Your task to perform on an android device: Go to wifi settings Image 0: 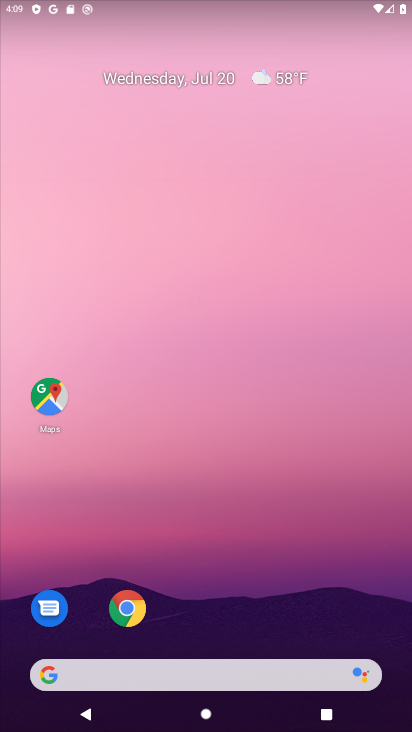
Step 0: drag from (240, 610) to (322, 2)
Your task to perform on an android device: Go to wifi settings Image 1: 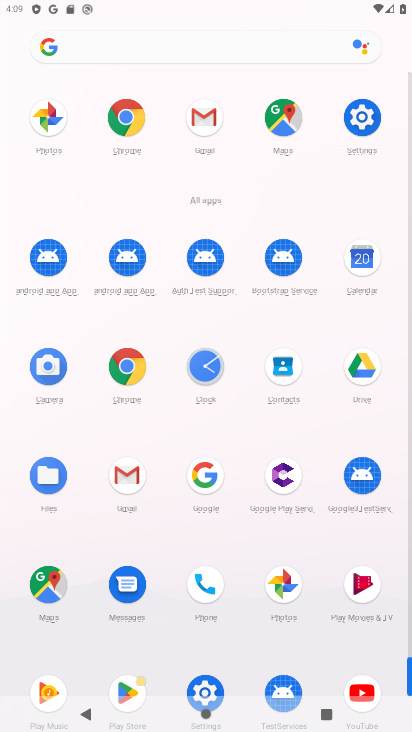
Step 1: click (379, 116)
Your task to perform on an android device: Go to wifi settings Image 2: 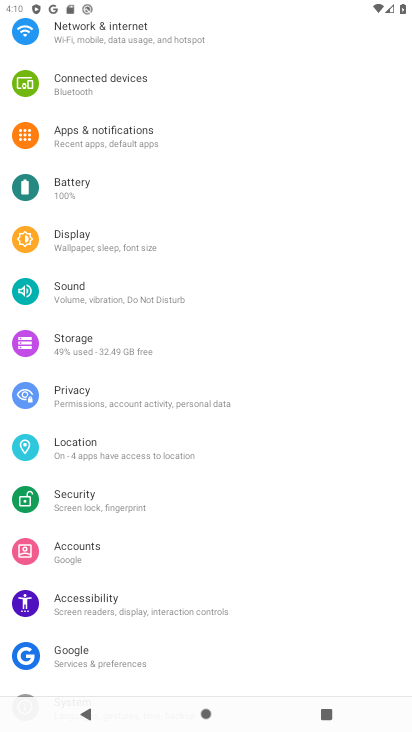
Step 2: drag from (141, 136) to (138, 328)
Your task to perform on an android device: Go to wifi settings Image 3: 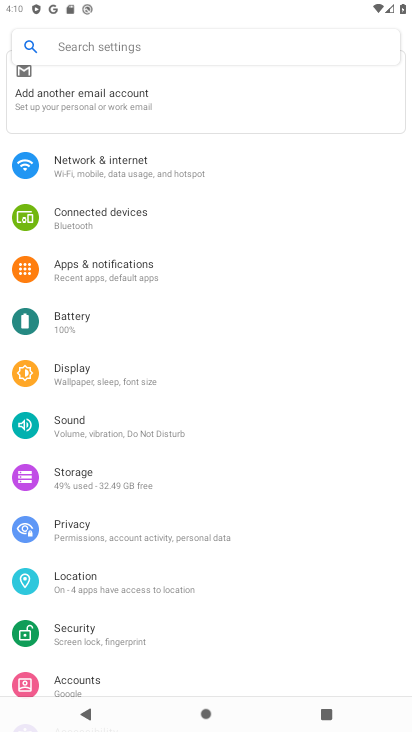
Step 3: click (105, 173)
Your task to perform on an android device: Go to wifi settings Image 4: 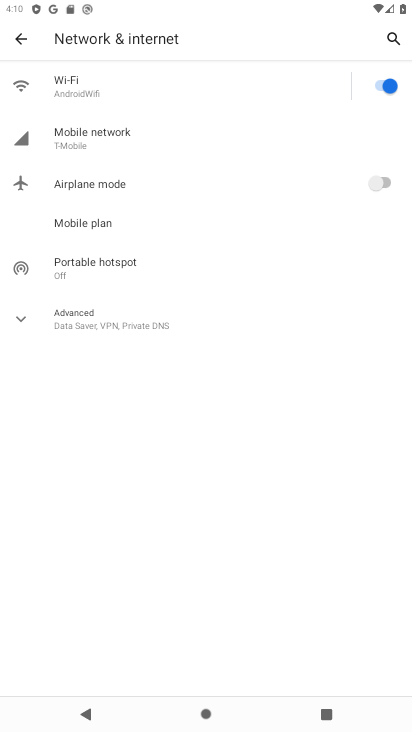
Step 4: click (86, 84)
Your task to perform on an android device: Go to wifi settings Image 5: 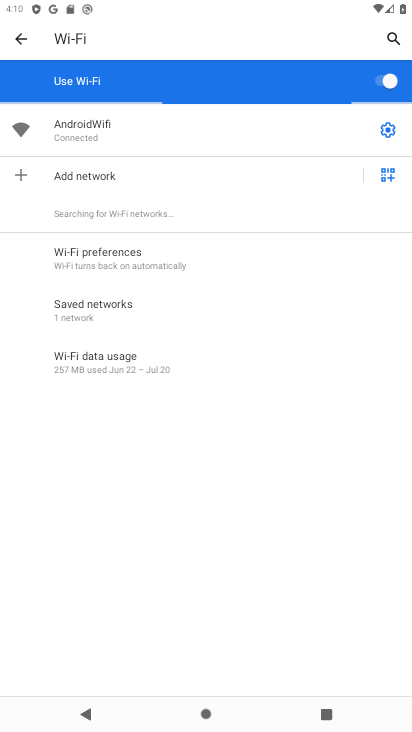
Step 5: task complete